Your task to perform on an android device: Go to notification settings Image 0: 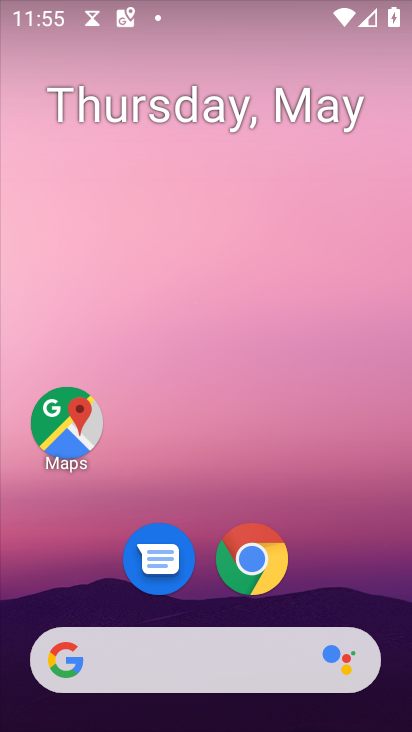
Step 0: drag from (207, 721) to (219, 194)
Your task to perform on an android device: Go to notification settings Image 1: 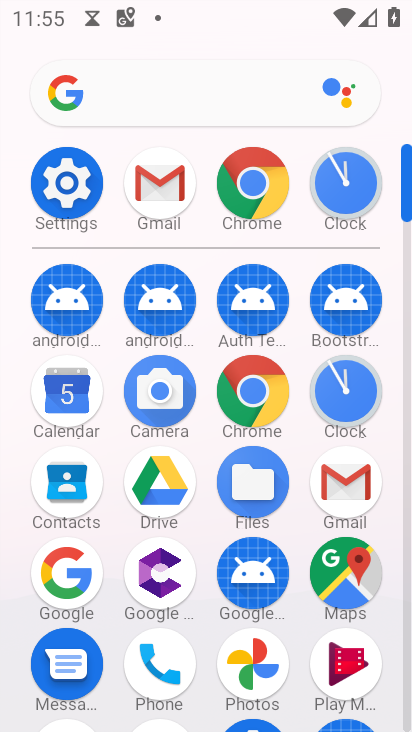
Step 1: click (58, 170)
Your task to perform on an android device: Go to notification settings Image 2: 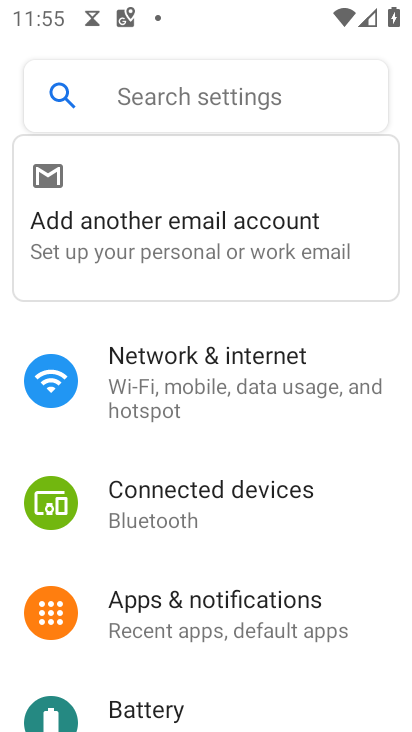
Step 2: click (187, 592)
Your task to perform on an android device: Go to notification settings Image 3: 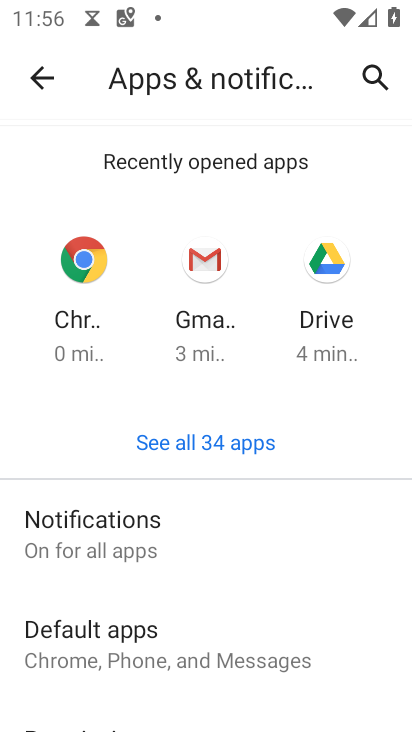
Step 3: task complete